Your task to perform on an android device: refresh tabs in the chrome app Image 0: 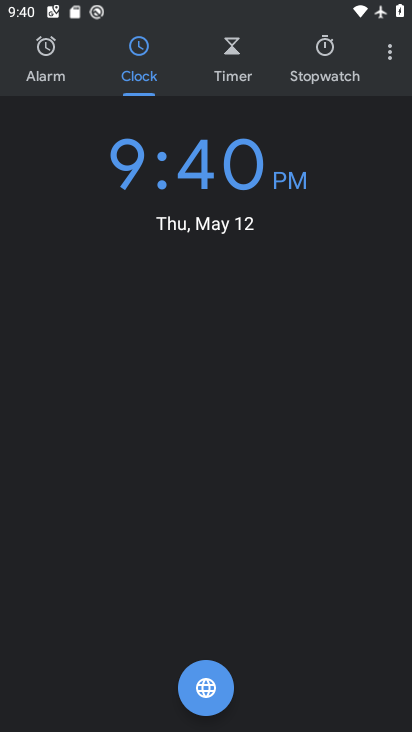
Step 0: press home button
Your task to perform on an android device: refresh tabs in the chrome app Image 1: 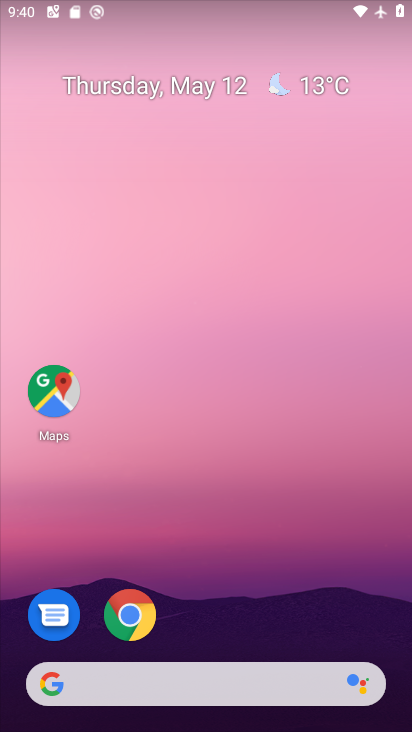
Step 1: click (129, 622)
Your task to perform on an android device: refresh tabs in the chrome app Image 2: 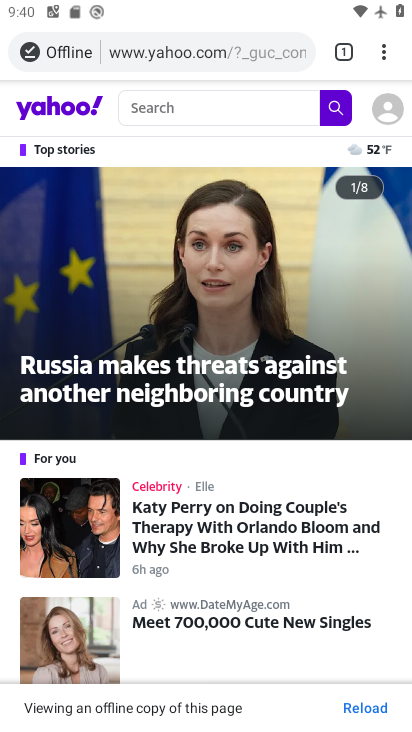
Step 2: click (385, 49)
Your task to perform on an android device: refresh tabs in the chrome app Image 3: 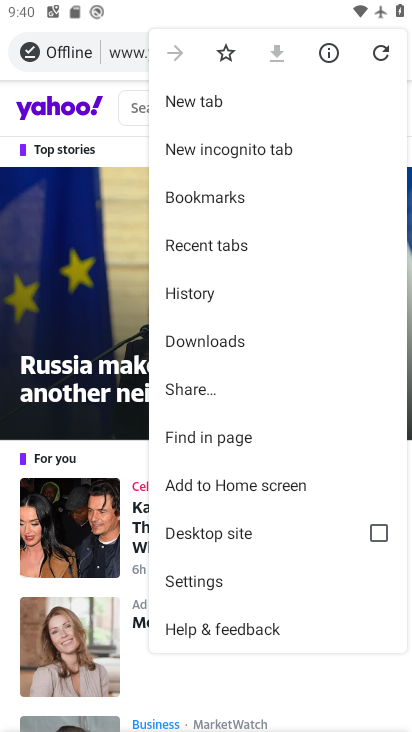
Step 3: click (379, 55)
Your task to perform on an android device: refresh tabs in the chrome app Image 4: 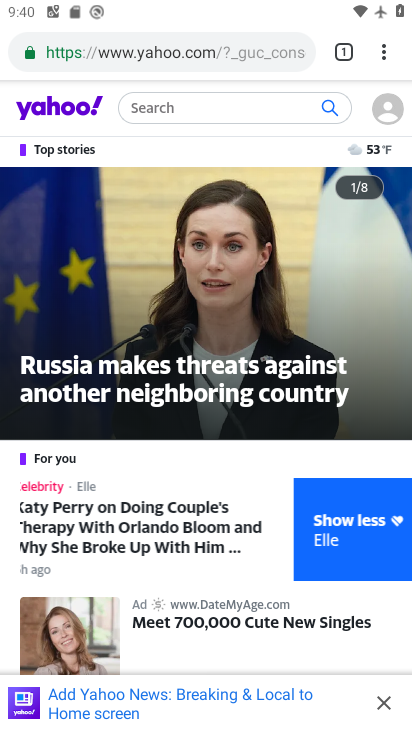
Step 4: task complete